Your task to perform on an android device: Do I have any events today? Image 0: 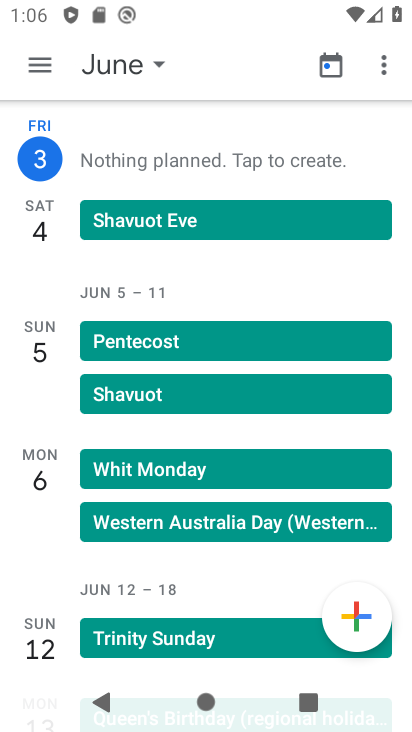
Step 0: press home button
Your task to perform on an android device: Do I have any events today? Image 1: 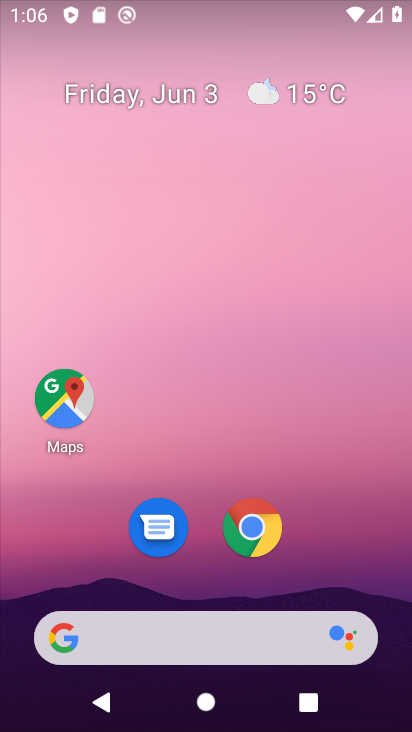
Step 1: drag from (158, 369) to (163, 53)
Your task to perform on an android device: Do I have any events today? Image 2: 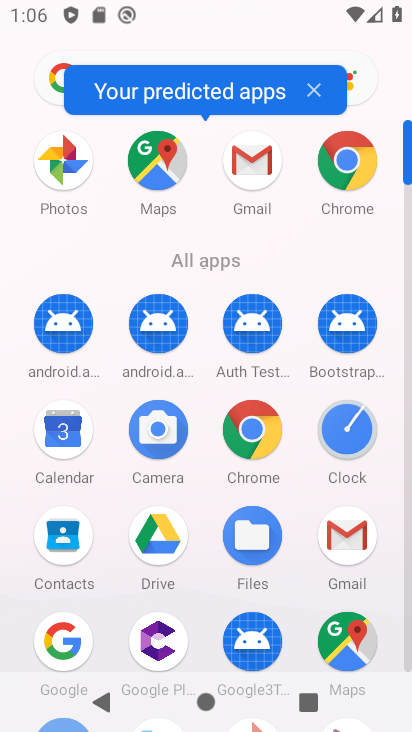
Step 2: click (56, 413)
Your task to perform on an android device: Do I have any events today? Image 3: 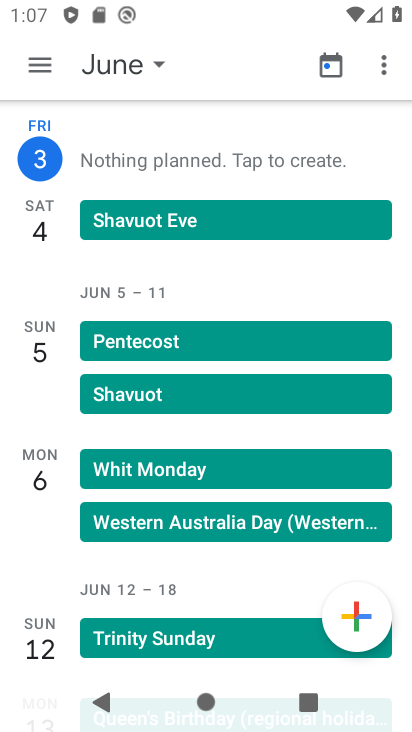
Step 3: click (23, 67)
Your task to perform on an android device: Do I have any events today? Image 4: 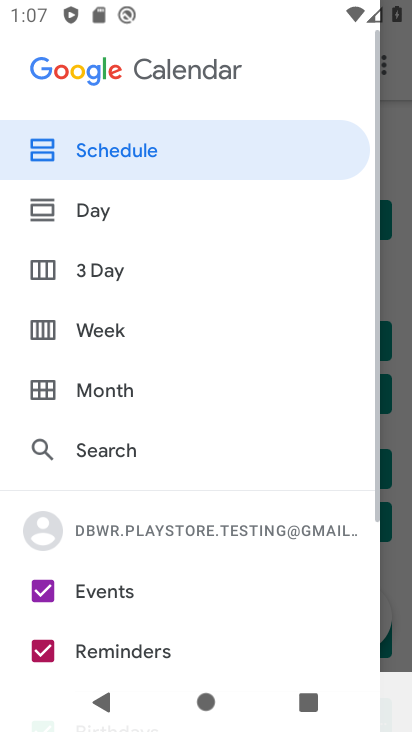
Step 4: click (182, 215)
Your task to perform on an android device: Do I have any events today? Image 5: 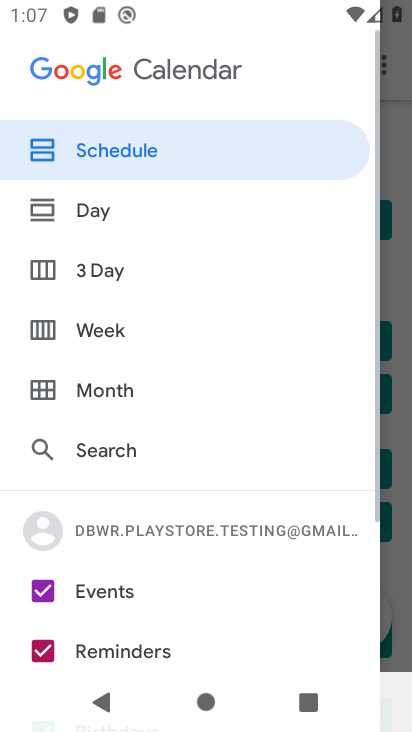
Step 5: click (157, 212)
Your task to perform on an android device: Do I have any events today? Image 6: 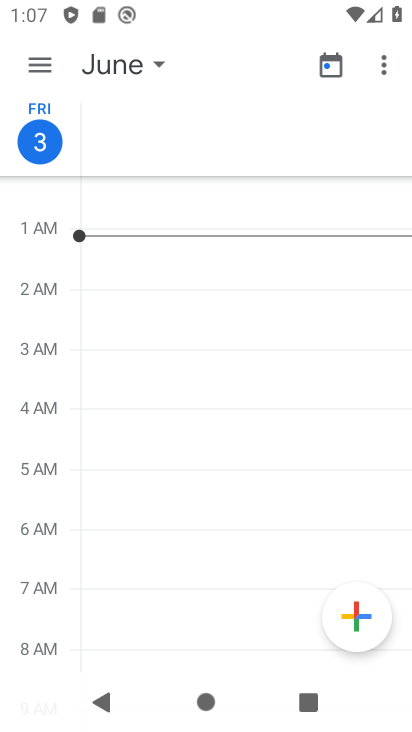
Step 6: task complete